Your task to perform on an android device: visit the assistant section in the google photos Image 0: 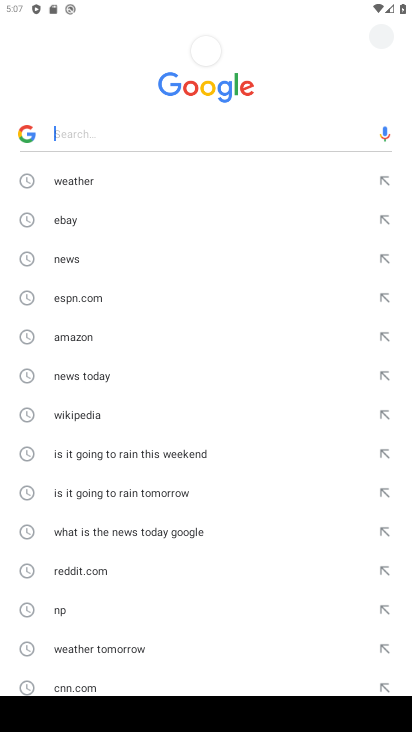
Step 0: press home button
Your task to perform on an android device: visit the assistant section in the google photos Image 1: 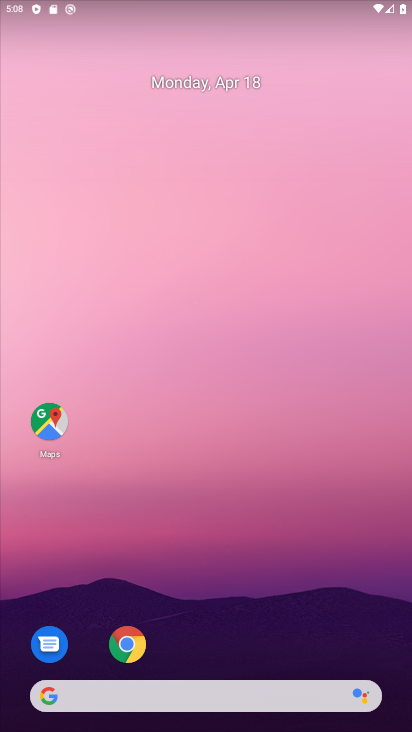
Step 1: drag from (198, 644) to (233, 128)
Your task to perform on an android device: visit the assistant section in the google photos Image 2: 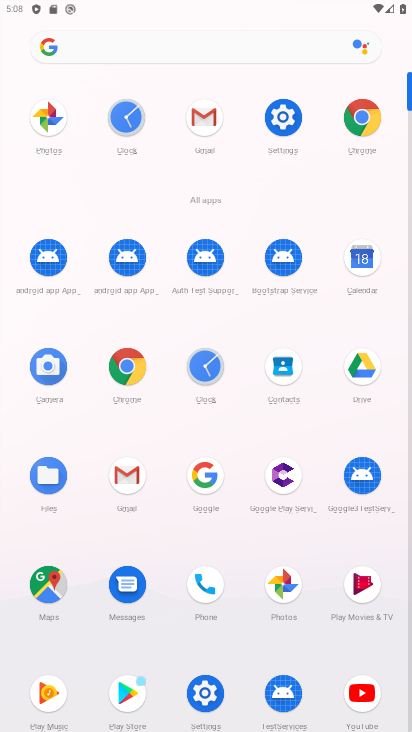
Step 2: click (281, 576)
Your task to perform on an android device: visit the assistant section in the google photos Image 3: 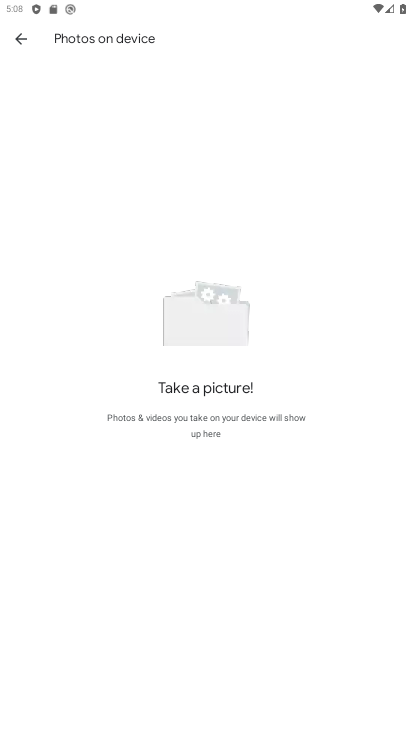
Step 3: click (23, 41)
Your task to perform on an android device: visit the assistant section in the google photos Image 4: 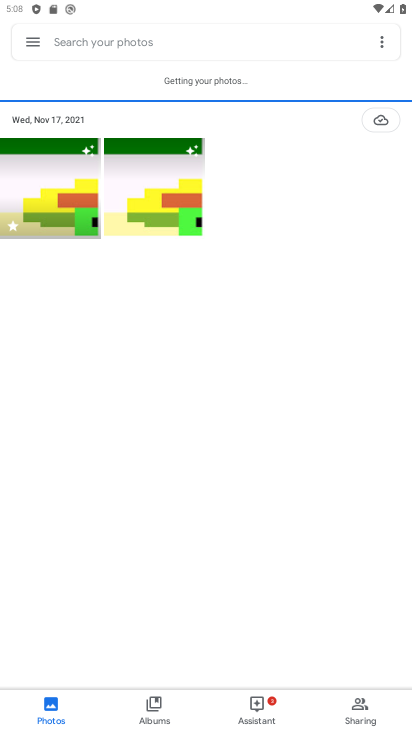
Step 4: click (252, 712)
Your task to perform on an android device: visit the assistant section in the google photos Image 5: 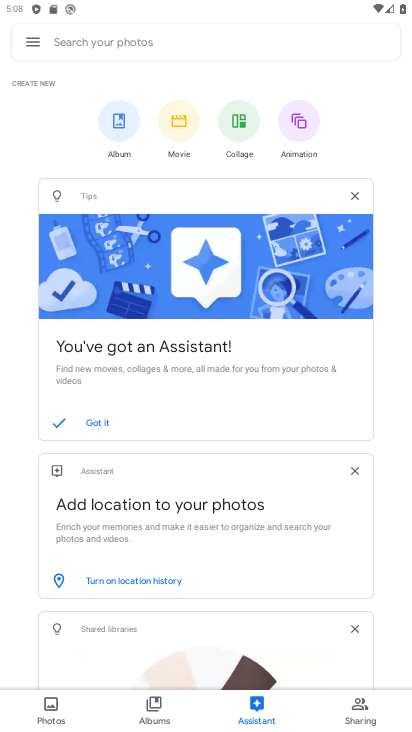
Step 5: task complete